Your task to perform on an android device: change the clock display to analog Image 0: 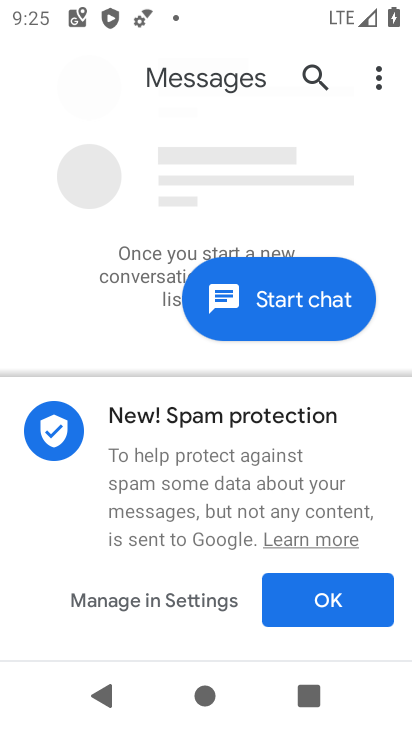
Step 0: press home button
Your task to perform on an android device: change the clock display to analog Image 1: 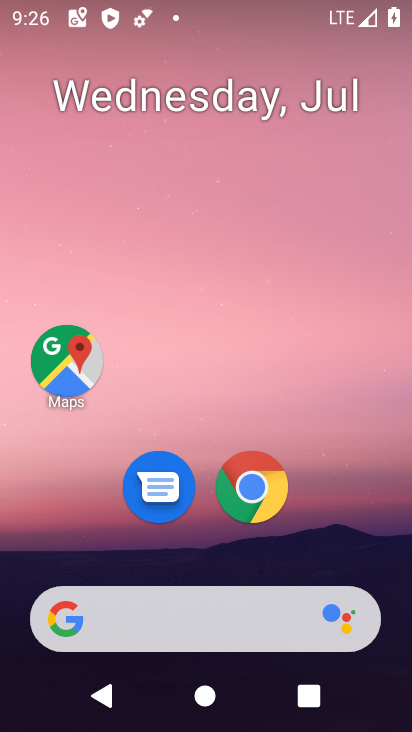
Step 1: drag from (219, 565) to (230, 14)
Your task to perform on an android device: change the clock display to analog Image 2: 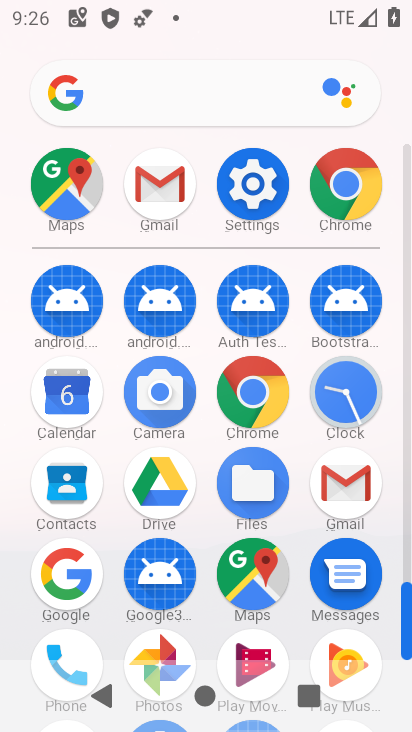
Step 2: click (343, 386)
Your task to perform on an android device: change the clock display to analog Image 3: 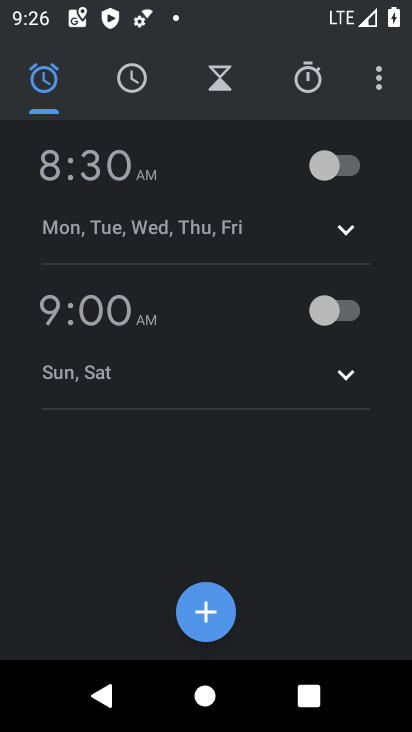
Step 3: click (380, 76)
Your task to perform on an android device: change the clock display to analog Image 4: 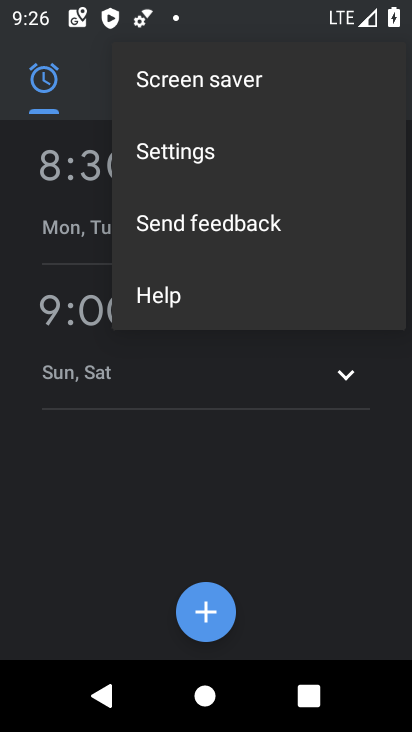
Step 4: click (186, 145)
Your task to perform on an android device: change the clock display to analog Image 5: 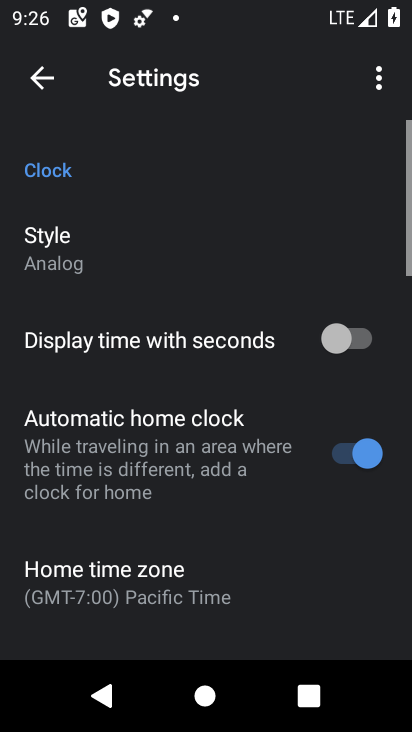
Step 5: click (52, 283)
Your task to perform on an android device: change the clock display to analog Image 6: 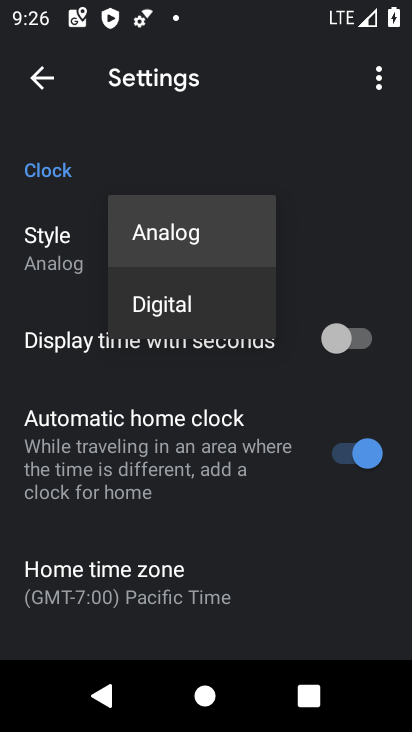
Step 6: click (240, 236)
Your task to perform on an android device: change the clock display to analog Image 7: 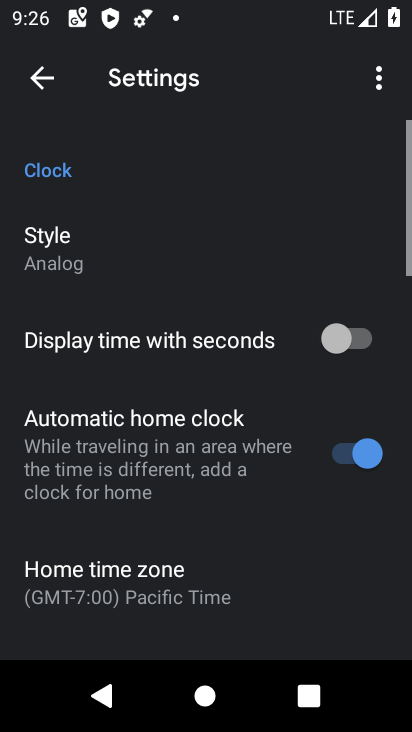
Step 7: task complete